Your task to perform on an android device: check the backup settings in the google photos Image 0: 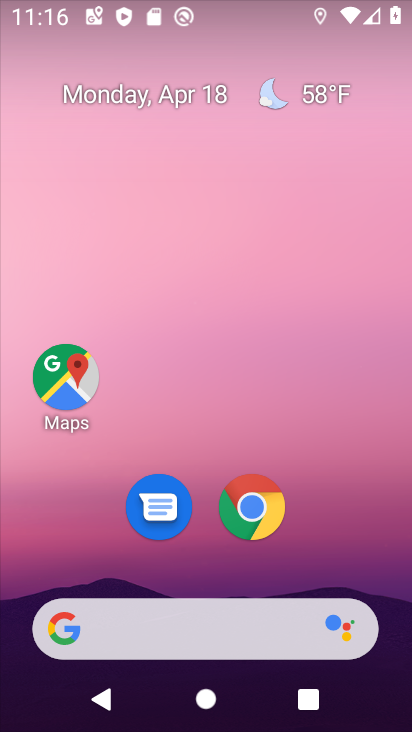
Step 0: drag from (273, 516) to (357, 43)
Your task to perform on an android device: check the backup settings in the google photos Image 1: 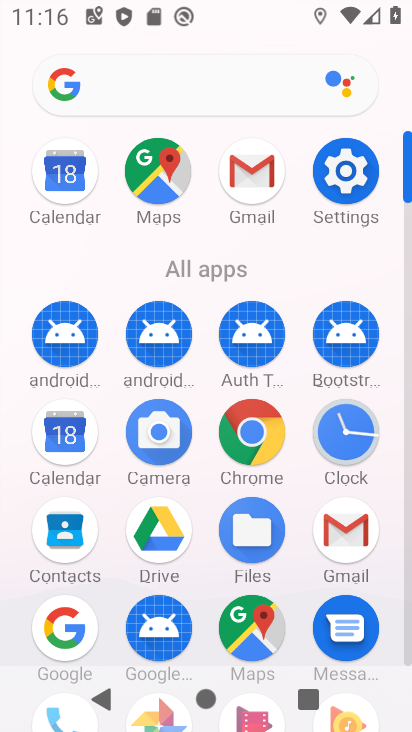
Step 1: drag from (205, 624) to (239, 415)
Your task to perform on an android device: check the backup settings in the google photos Image 2: 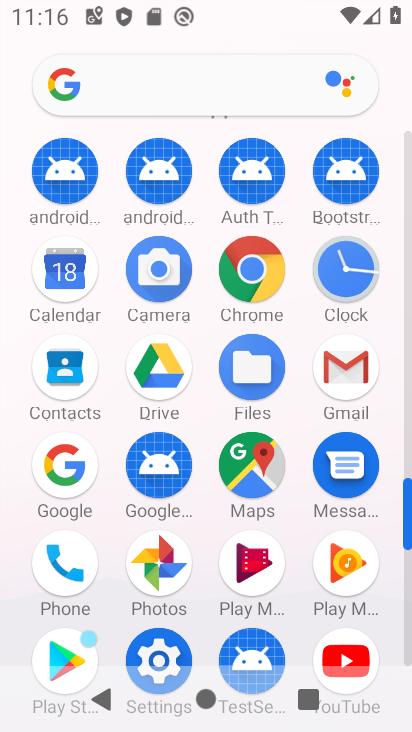
Step 2: click (167, 571)
Your task to perform on an android device: check the backup settings in the google photos Image 3: 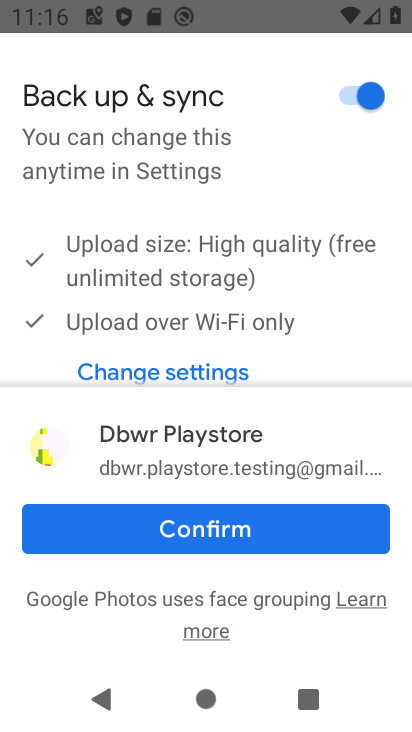
Step 3: click (204, 523)
Your task to perform on an android device: check the backup settings in the google photos Image 4: 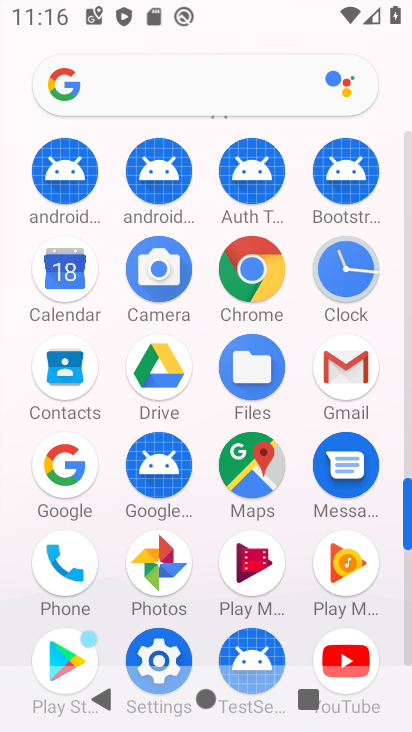
Step 4: click (184, 570)
Your task to perform on an android device: check the backup settings in the google photos Image 5: 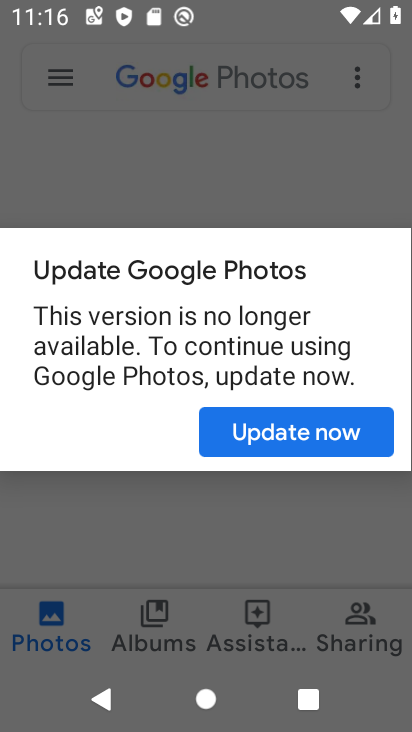
Step 5: click (271, 431)
Your task to perform on an android device: check the backup settings in the google photos Image 6: 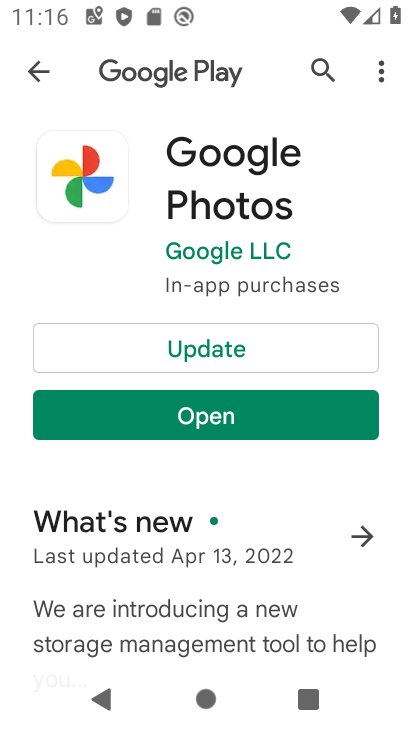
Step 6: click (228, 416)
Your task to perform on an android device: check the backup settings in the google photos Image 7: 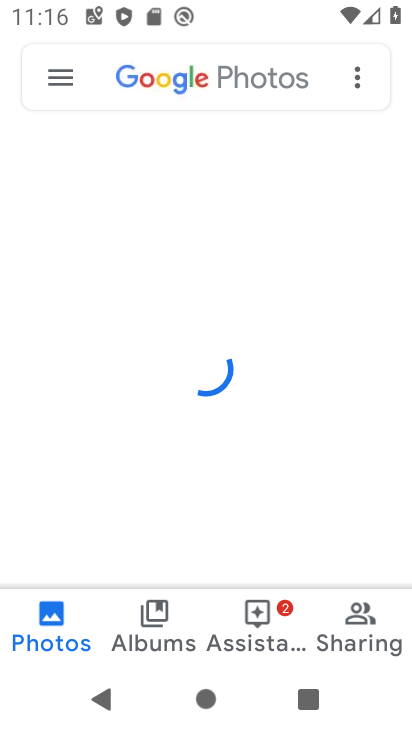
Step 7: click (59, 82)
Your task to perform on an android device: check the backup settings in the google photos Image 8: 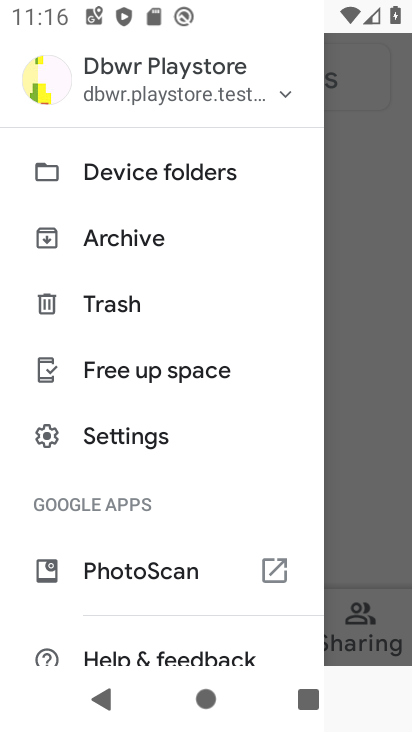
Step 8: click (143, 452)
Your task to perform on an android device: check the backup settings in the google photos Image 9: 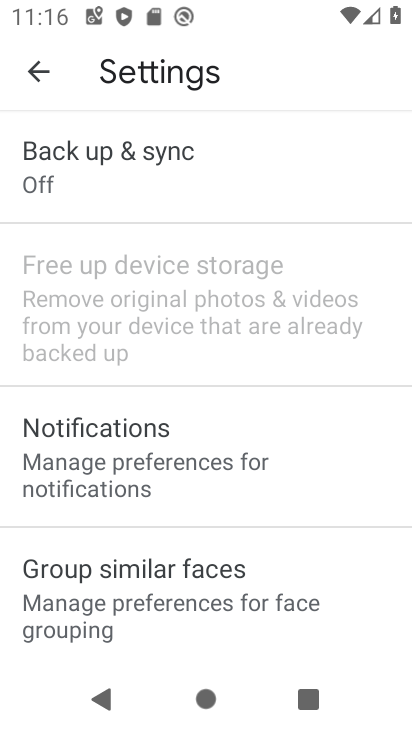
Step 9: click (110, 162)
Your task to perform on an android device: check the backup settings in the google photos Image 10: 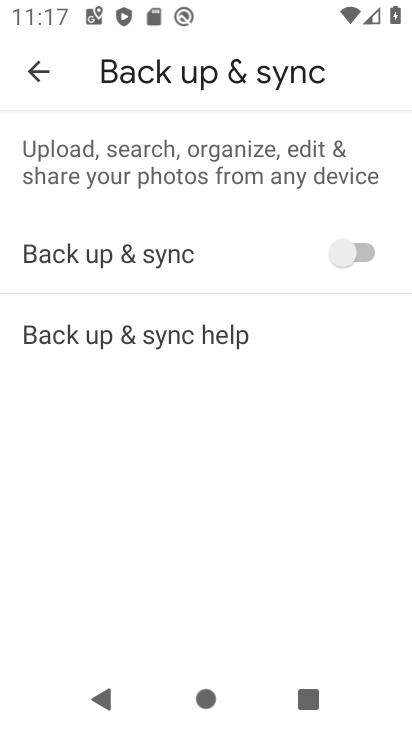
Step 10: task complete